Your task to perform on an android device: open device folders in google photos Image 0: 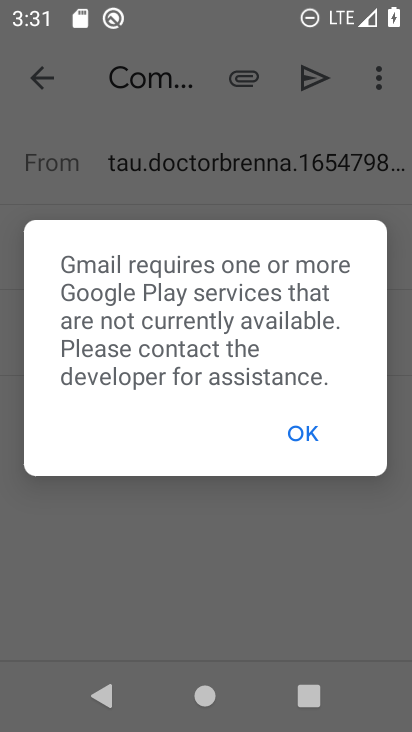
Step 0: click (312, 426)
Your task to perform on an android device: open device folders in google photos Image 1: 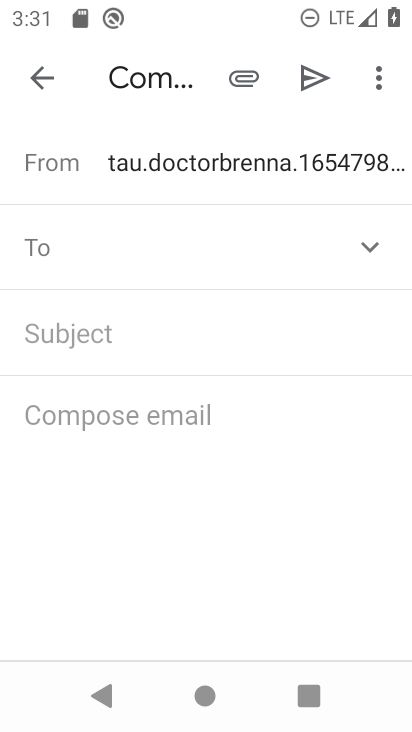
Step 1: press back button
Your task to perform on an android device: open device folders in google photos Image 2: 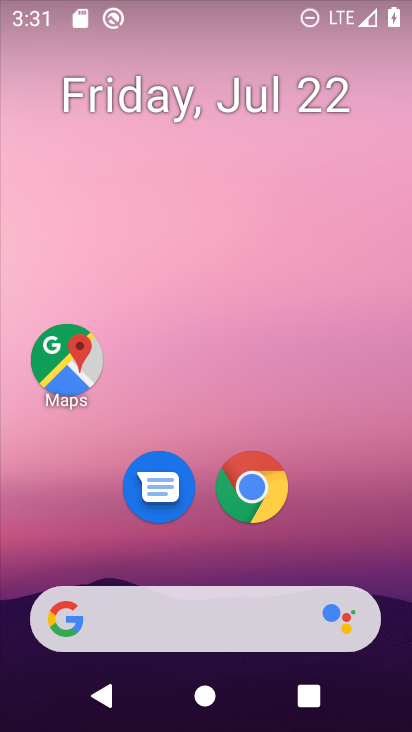
Step 2: drag from (115, 525) to (185, 5)
Your task to perform on an android device: open device folders in google photos Image 3: 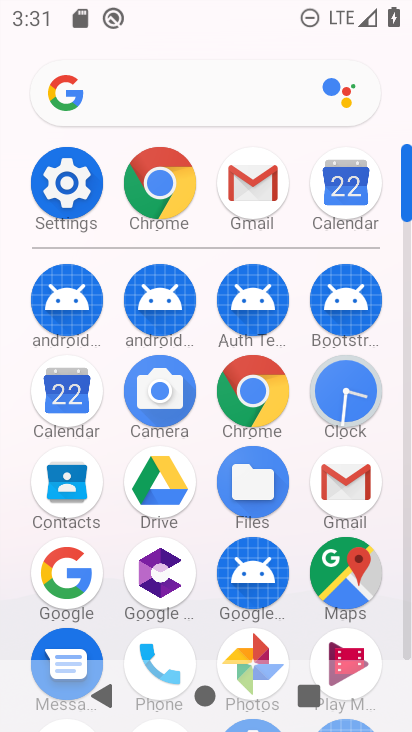
Step 3: click (241, 641)
Your task to perform on an android device: open device folders in google photos Image 4: 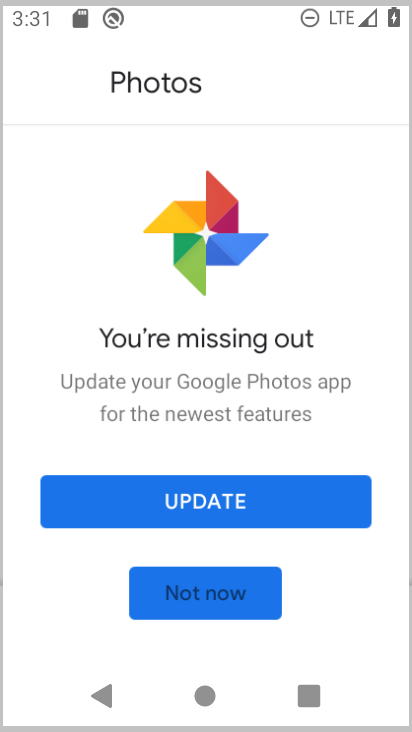
Step 4: click (69, 76)
Your task to perform on an android device: open device folders in google photos Image 5: 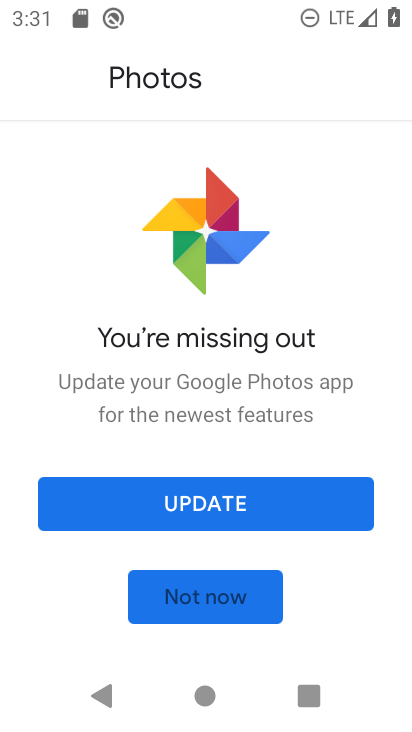
Step 5: click (210, 615)
Your task to perform on an android device: open device folders in google photos Image 6: 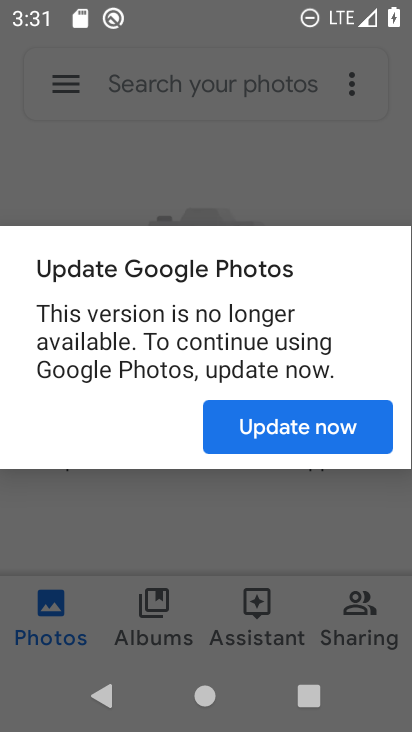
Step 6: click (266, 432)
Your task to perform on an android device: open device folders in google photos Image 7: 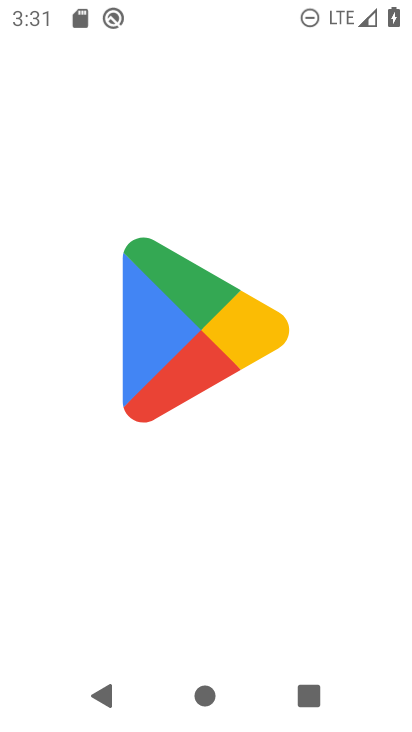
Step 7: click (47, 86)
Your task to perform on an android device: open device folders in google photos Image 8: 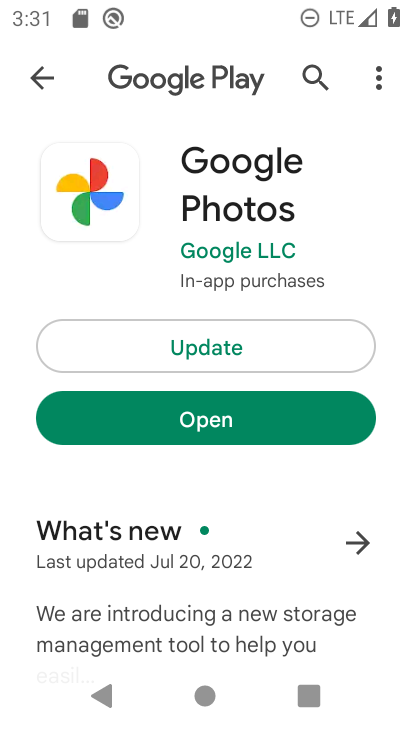
Step 8: click (258, 411)
Your task to perform on an android device: open device folders in google photos Image 9: 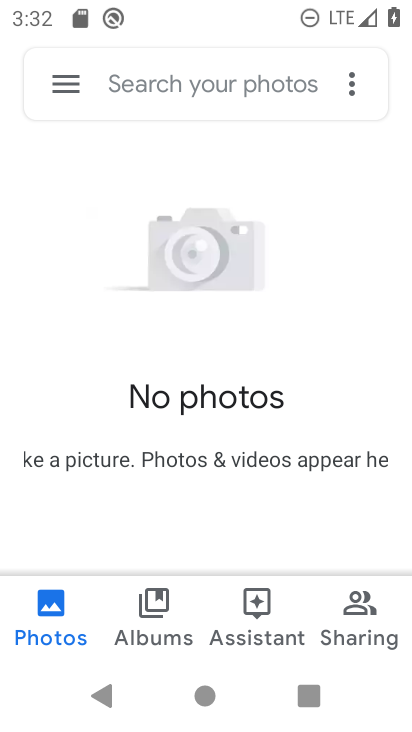
Step 9: click (77, 92)
Your task to perform on an android device: open device folders in google photos Image 10: 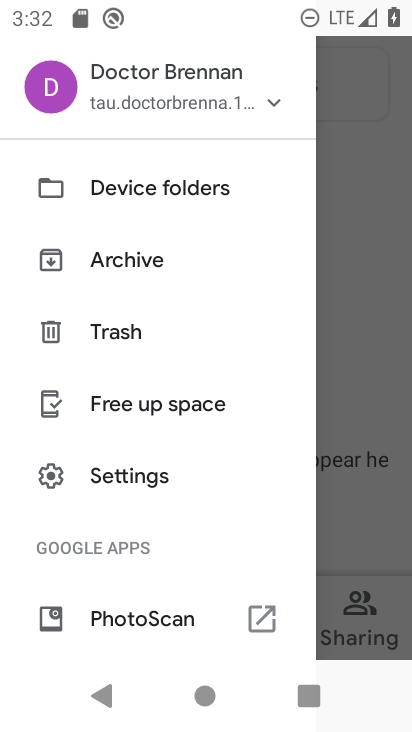
Step 10: click (169, 175)
Your task to perform on an android device: open device folders in google photos Image 11: 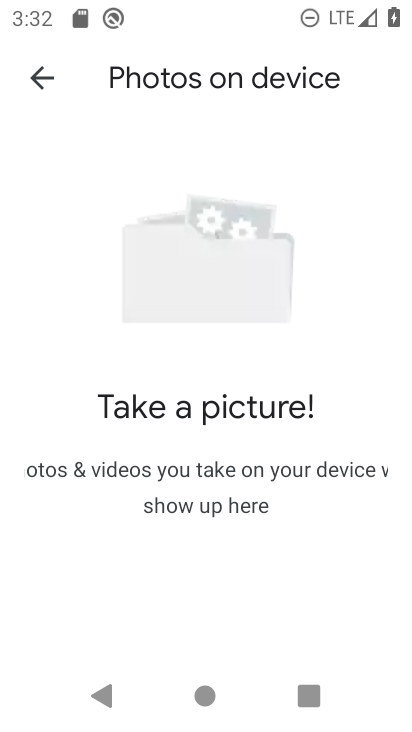
Step 11: task complete